Your task to perform on an android device: Open my contact list Image 0: 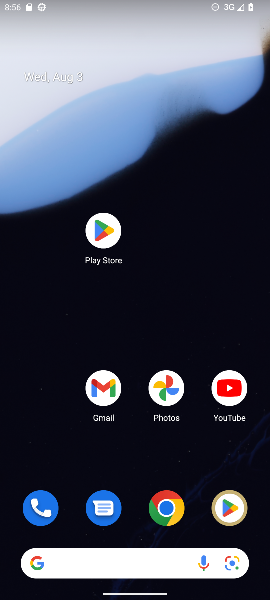
Step 0: drag from (139, 538) to (75, 20)
Your task to perform on an android device: Open my contact list Image 1: 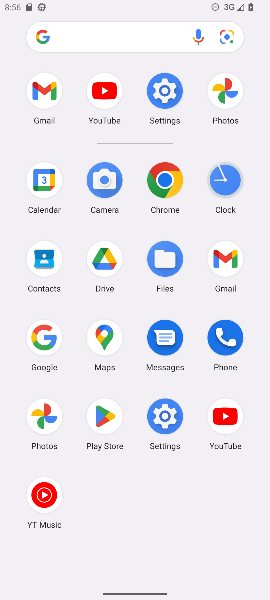
Step 1: click (230, 339)
Your task to perform on an android device: Open my contact list Image 2: 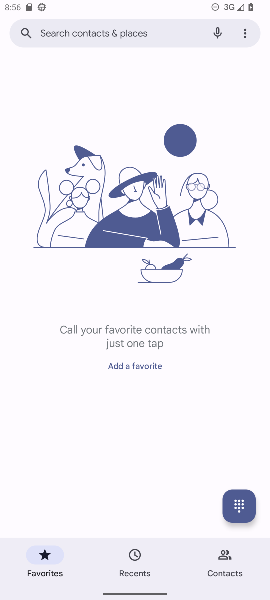
Step 2: click (214, 561)
Your task to perform on an android device: Open my contact list Image 3: 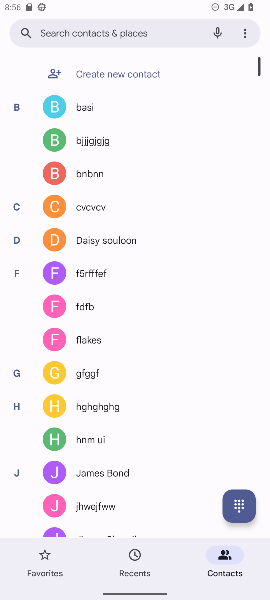
Step 3: task complete